Your task to perform on an android device: Open sound settings Image 0: 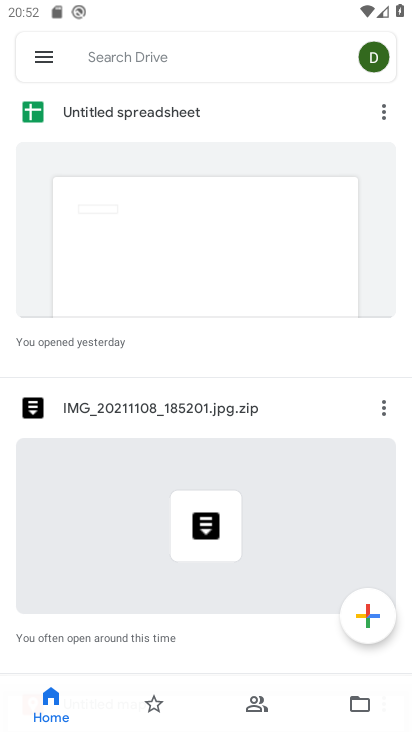
Step 0: press home button
Your task to perform on an android device: Open sound settings Image 1: 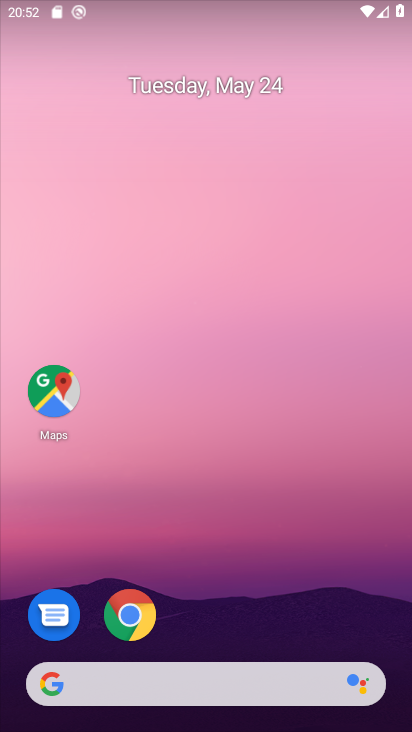
Step 1: drag from (261, 609) to (247, 9)
Your task to perform on an android device: Open sound settings Image 2: 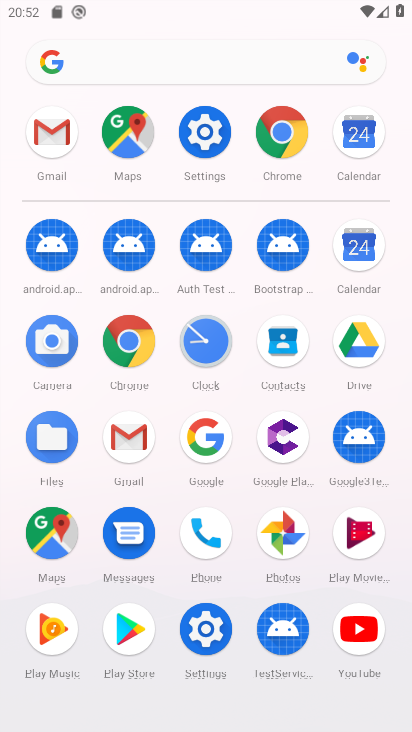
Step 2: click (198, 129)
Your task to perform on an android device: Open sound settings Image 3: 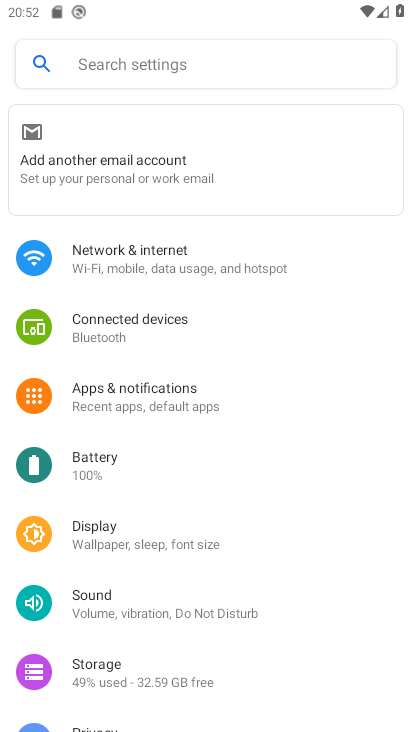
Step 3: click (144, 598)
Your task to perform on an android device: Open sound settings Image 4: 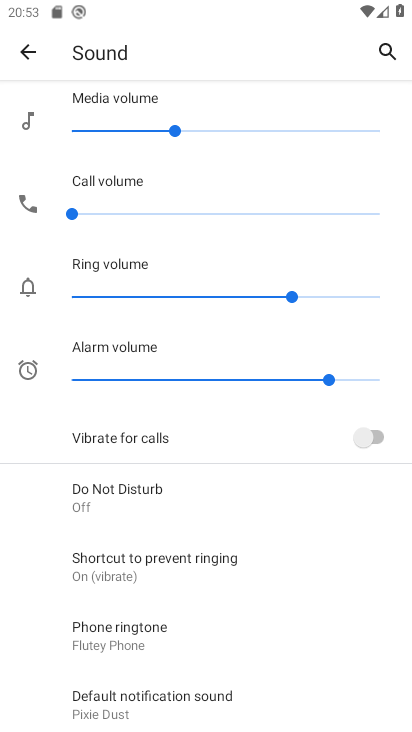
Step 4: task complete